Your task to perform on an android device: Go to sound settings Image 0: 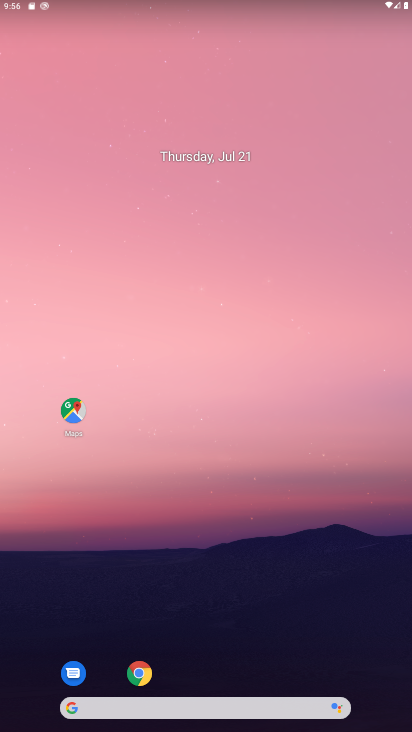
Step 0: drag from (200, 671) to (203, 128)
Your task to perform on an android device: Go to sound settings Image 1: 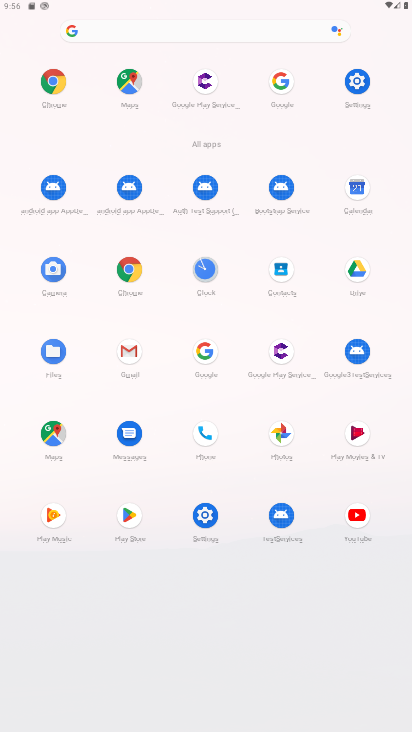
Step 1: click (358, 86)
Your task to perform on an android device: Go to sound settings Image 2: 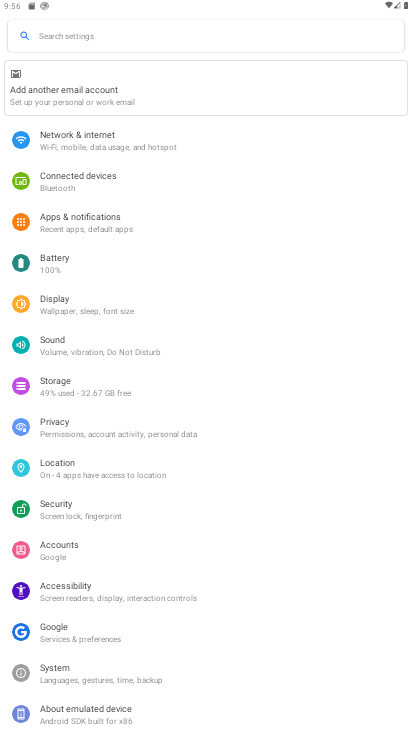
Step 2: click (59, 343)
Your task to perform on an android device: Go to sound settings Image 3: 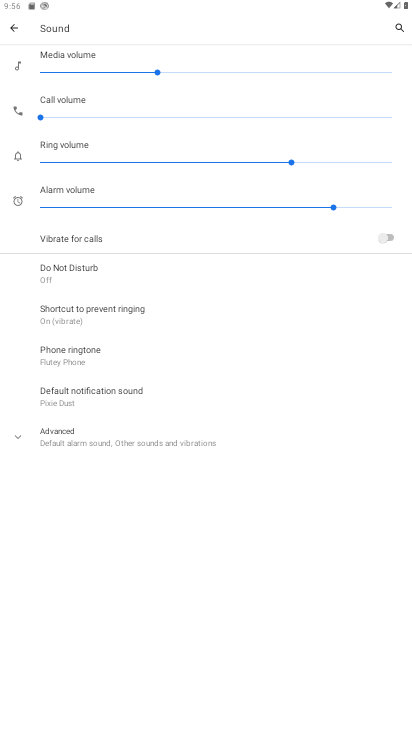
Step 3: task complete